Your task to perform on an android device: Search for vegetarian restaurants on Maps Image 0: 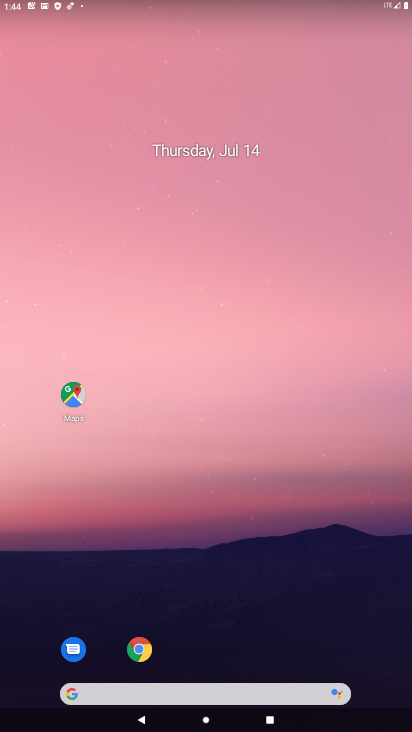
Step 0: drag from (375, 665) to (214, 90)
Your task to perform on an android device: Search for vegetarian restaurants on Maps Image 1: 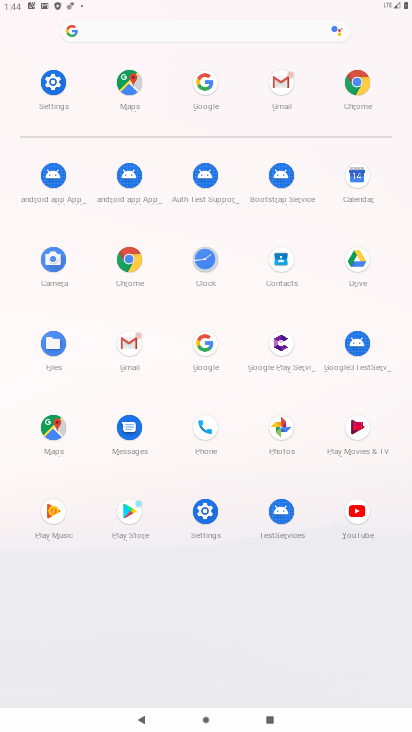
Step 1: click (56, 424)
Your task to perform on an android device: Search for vegetarian restaurants on Maps Image 2: 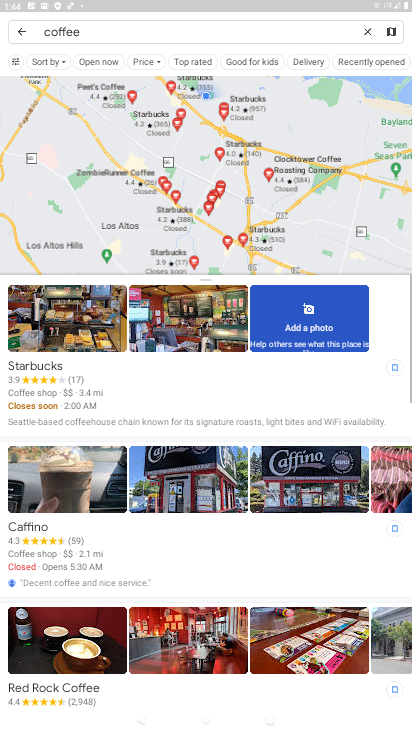
Step 2: click (365, 30)
Your task to perform on an android device: Search for vegetarian restaurants on Maps Image 3: 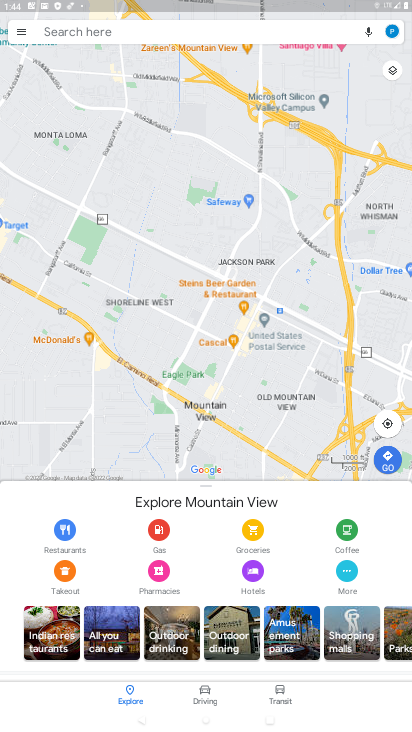
Step 3: click (94, 34)
Your task to perform on an android device: Search for vegetarian restaurants on Maps Image 4: 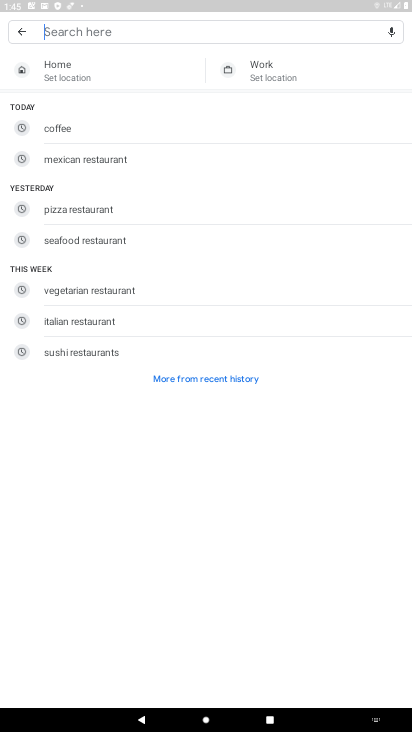
Step 4: click (96, 293)
Your task to perform on an android device: Search for vegetarian restaurants on Maps Image 5: 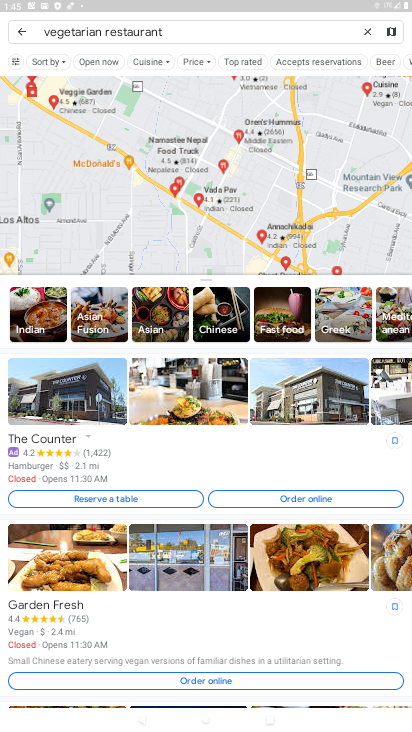
Step 5: task complete